Your task to perform on an android device: Open Yahoo.com Image 0: 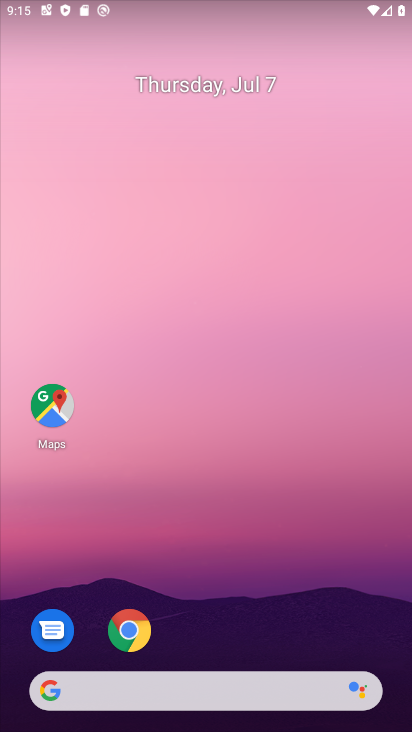
Step 0: click (134, 629)
Your task to perform on an android device: Open Yahoo.com Image 1: 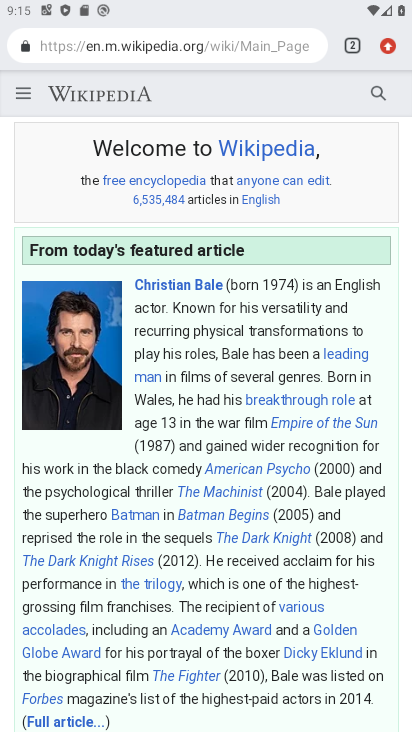
Step 1: click (350, 42)
Your task to perform on an android device: Open Yahoo.com Image 2: 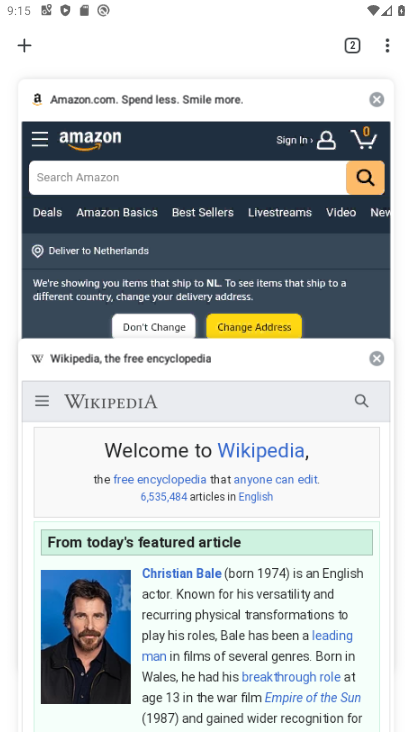
Step 2: click (373, 103)
Your task to perform on an android device: Open Yahoo.com Image 3: 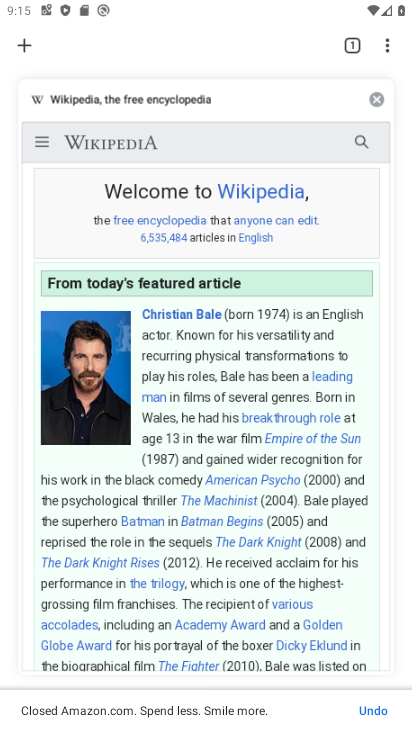
Step 3: click (373, 103)
Your task to perform on an android device: Open Yahoo.com Image 4: 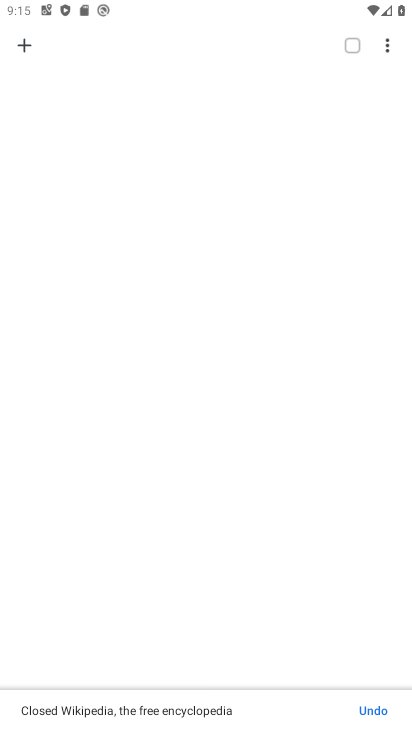
Step 4: click (24, 47)
Your task to perform on an android device: Open Yahoo.com Image 5: 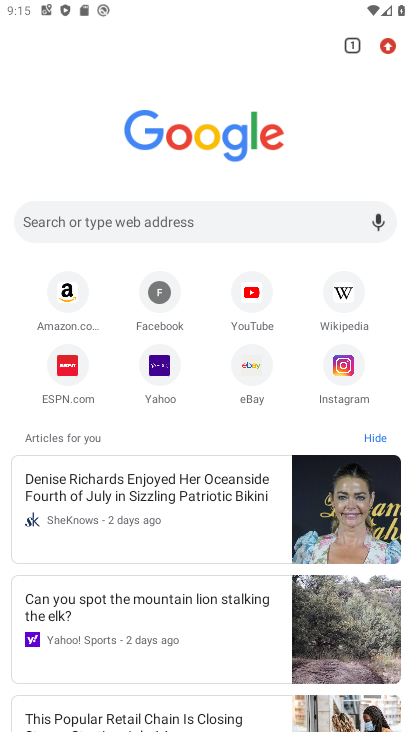
Step 5: click (154, 374)
Your task to perform on an android device: Open Yahoo.com Image 6: 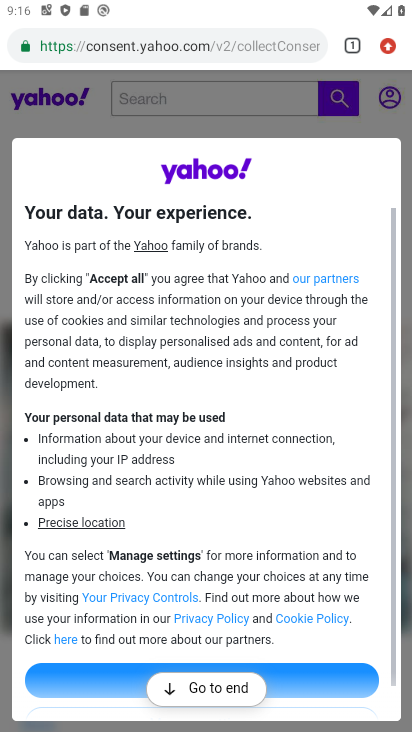
Step 6: task complete